Your task to perform on an android device: empty trash in the gmail app Image 0: 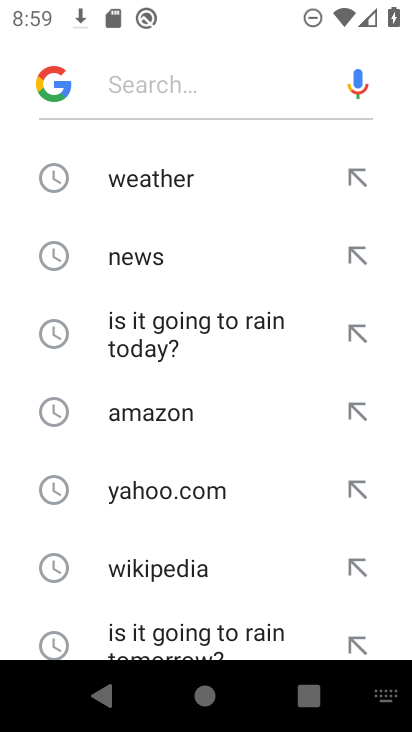
Step 0: press home button
Your task to perform on an android device: empty trash in the gmail app Image 1: 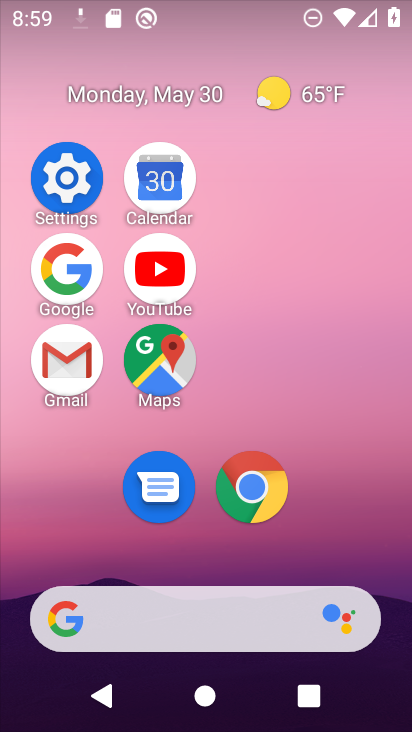
Step 1: click (88, 399)
Your task to perform on an android device: empty trash in the gmail app Image 2: 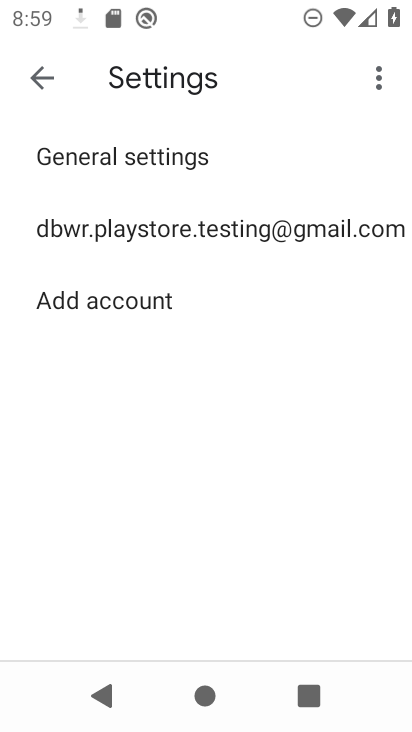
Step 2: click (33, 91)
Your task to perform on an android device: empty trash in the gmail app Image 3: 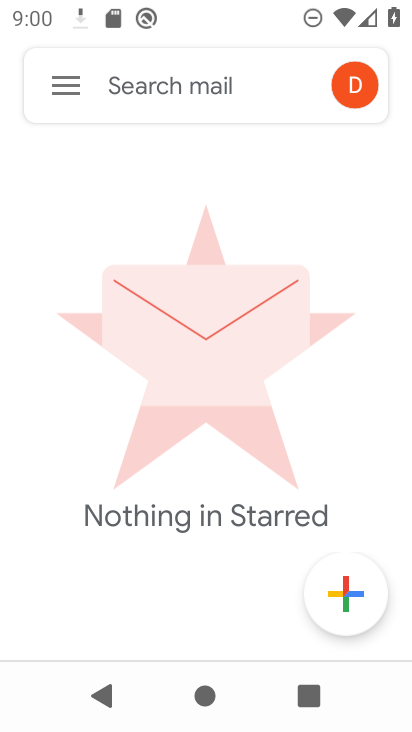
Step 3: click (60, 85)
Your task to perform on an android device: empty trash in the gmail app Image 4: 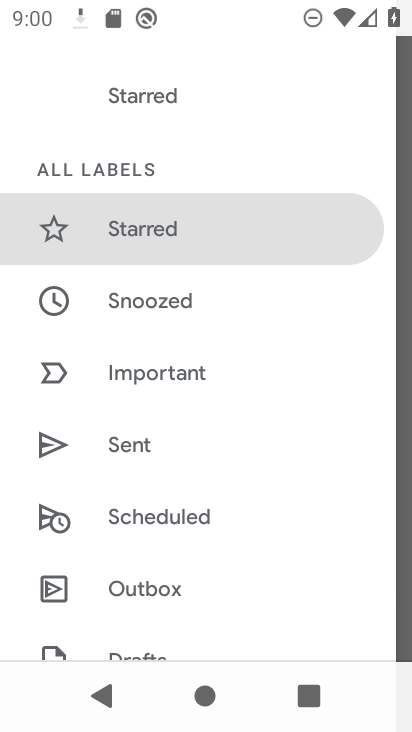
Step 4: drag from (255, 304) to (251, 727)
Your task to perform on an android device: empty trash in the gmail app Image 5: 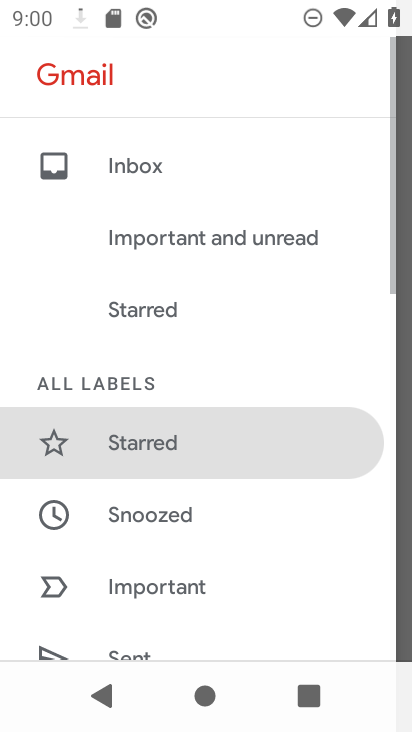
Step 5: drag from (287, 584) to (269, 122)
Your task to perform on an android device: empty trash in the gmail app Image 6: 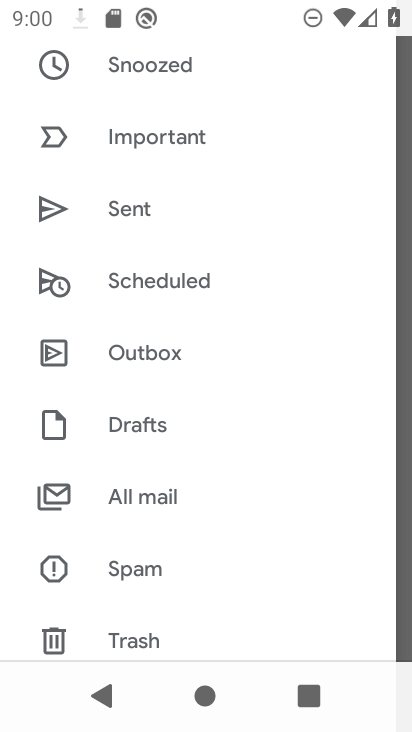
Step 6: click (236, 631)
Your task to perform on an android device: empty trash in the gmail app Image 7: 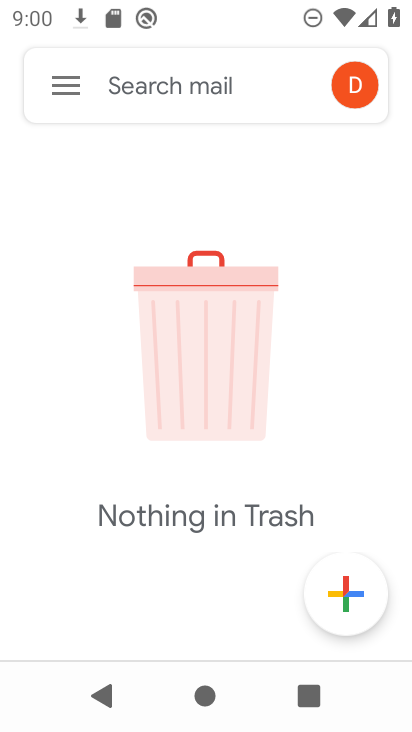
Step 7: task complete